Your task to perform on an android device: toggle location history Image 0: 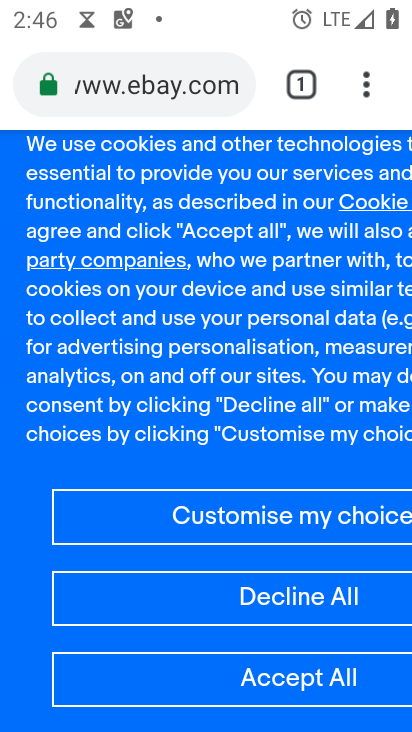
Step 0: press back button
Your task to perform on an android device: toggle location history Image 1: 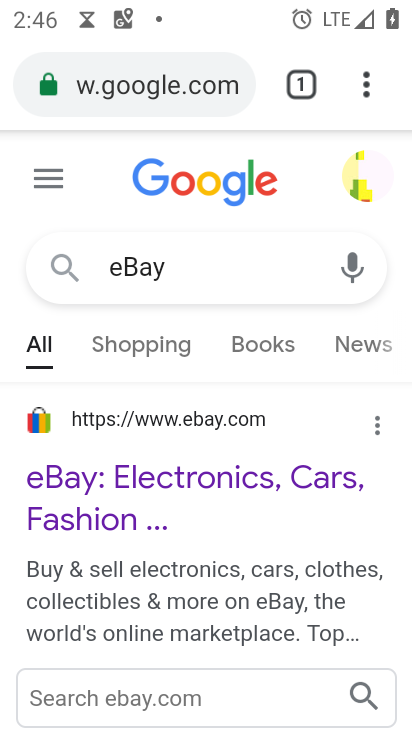
Step 1: press home button
Your task to perform on an android device: toggle location history Image 2: 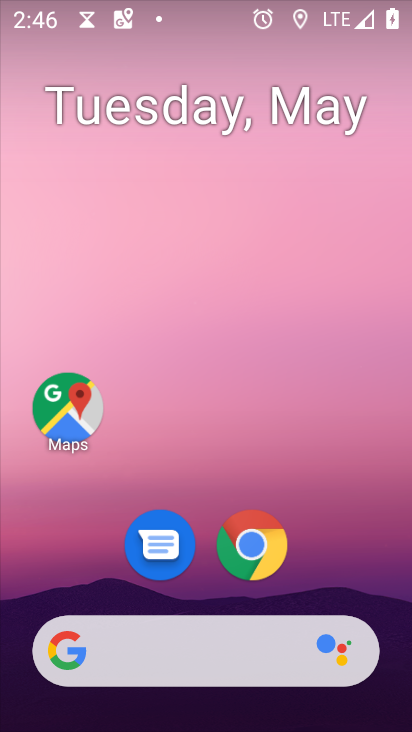
Step 2: drag from (352, 510) to (290, 59)
Your task to perform on an android device: toggle location history Image 3: 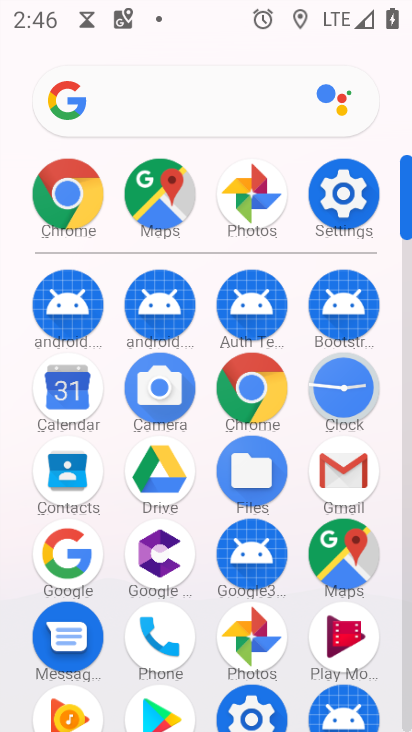
Step 3: click (341, 189)
Your task to perform on an android device: toggle location history Image 4: 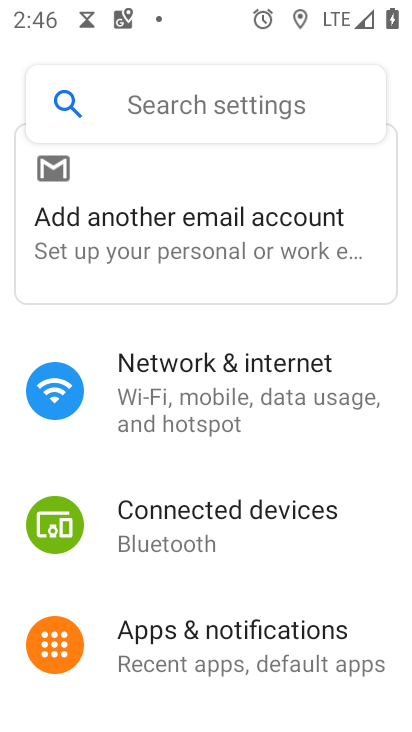
Step 4: drag from (299, 600) to (298, 167)
Your task to perform on an android device: toggle location history Image 5: 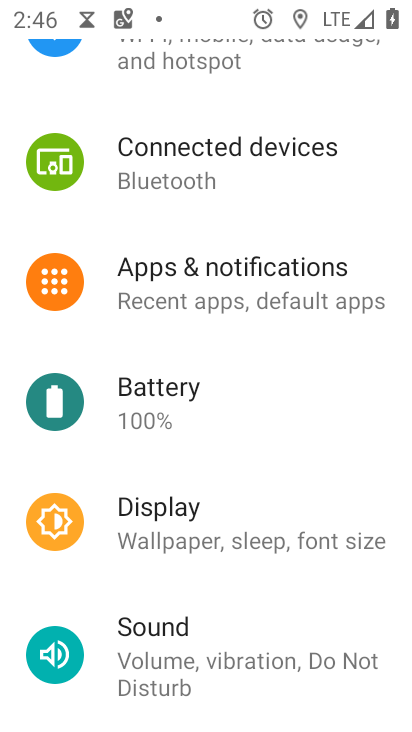
Step 5: drag from (222, 551) to (221, 233)
Your task to perform on an android device: toggle location history Image 6: 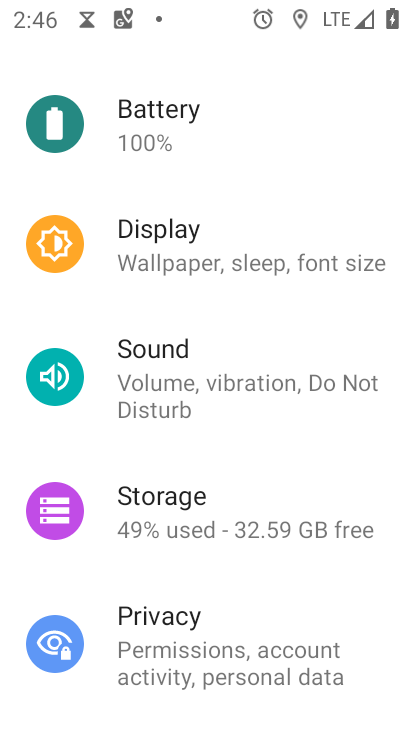
Step 6: drag from (205, 566) to (254, 138)
Your task to perform on an android device: toggle location history Image 7: 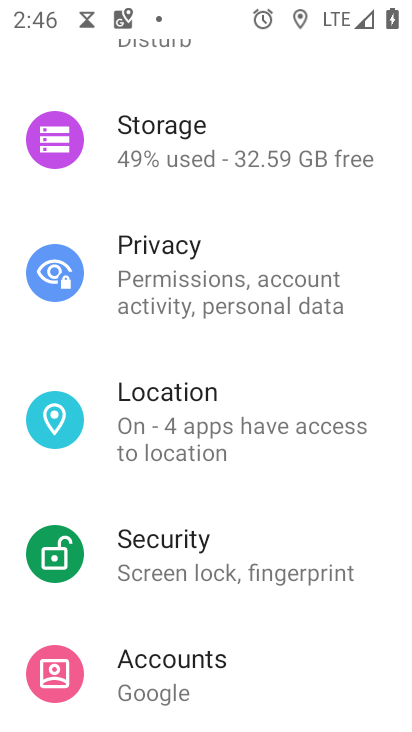
Step 7: click (222, 390)
Your task to perform on an android device: toggle location history Image 8: 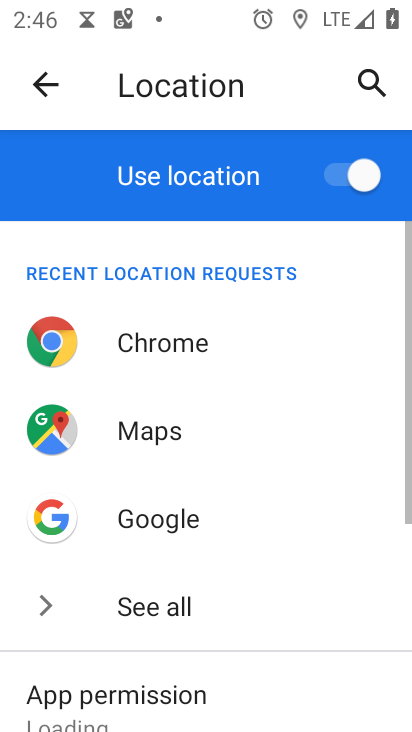
Step 8: drag from (187, 586) to (234, 140)
Your task to perform on an android device: toggle location history Image 9: 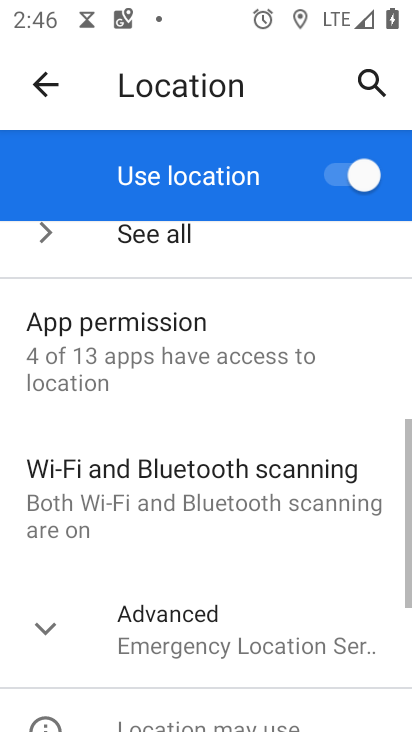
Step 9: click (115, 615)
Your task to perform on an android device: toggle location history Image 10: 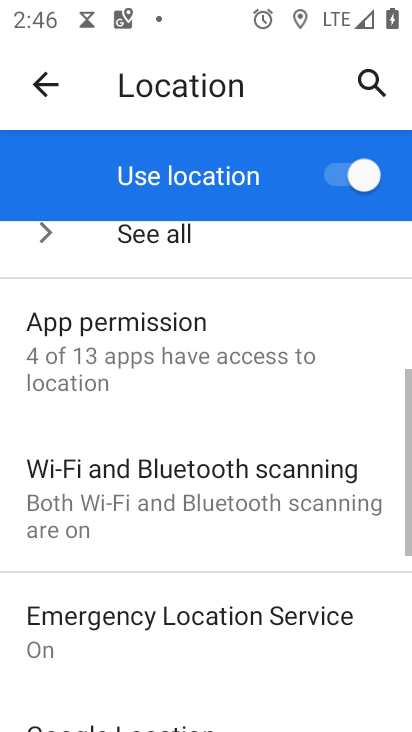
Step 10: drag from (206, 606) to (251, 219)
Your task to perform on an android device: toggle location history Image 11: 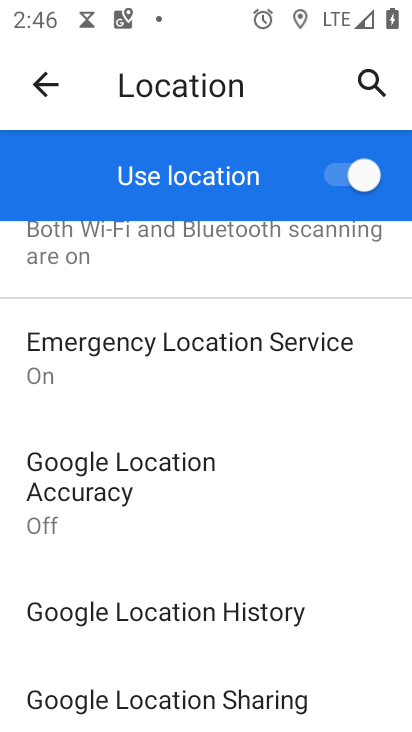
Step 11: drag from (249, 598) to (285, 323)
Your task to perform on an android device: toggle location history Image 12: 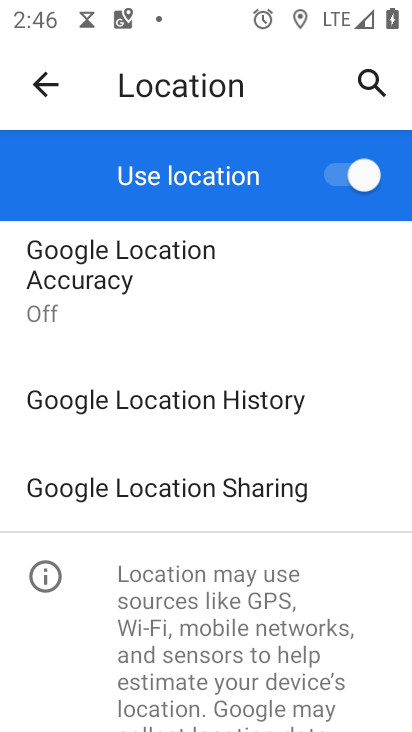
Step 12: click (148, 390)
Your task to perform on an android device: toggle location history Image 13: 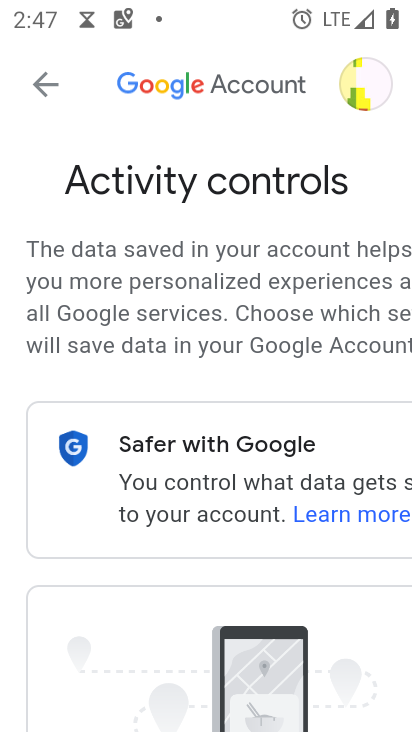
Step 13: drag from (155, 569) to (155, 144)
Your task to perform on an android device: toggle location history Image 14: 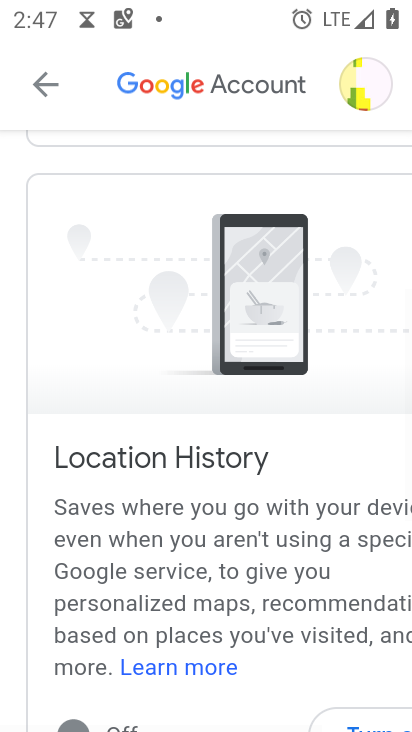
Step 14: drag from (102, 567) to (88, 204)
Your task to perform on an android device: toggle location history Image 15: 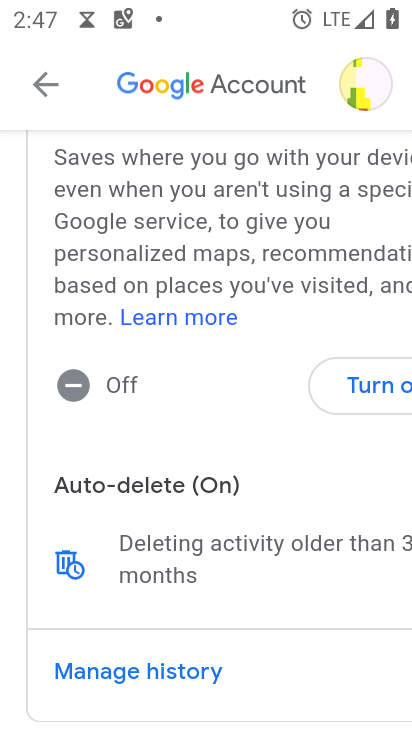
Step 15: click (351, 385)
Your task to perform on an android device: toggle location history Image 16: 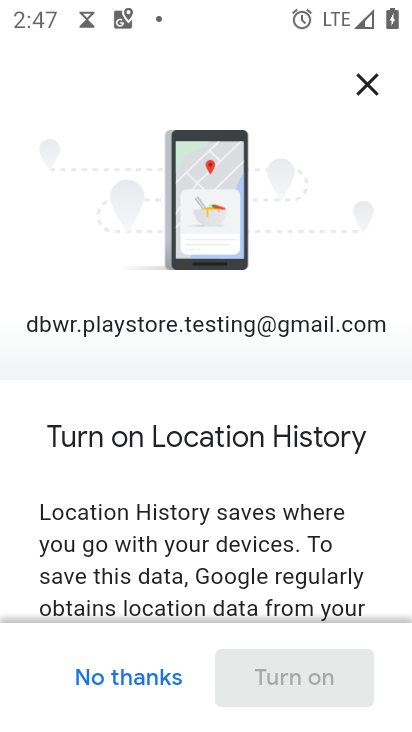
Step 16: drag from (290, 456) to (315, 162)
Your task to perform on an android device: toggle location history Image 17: 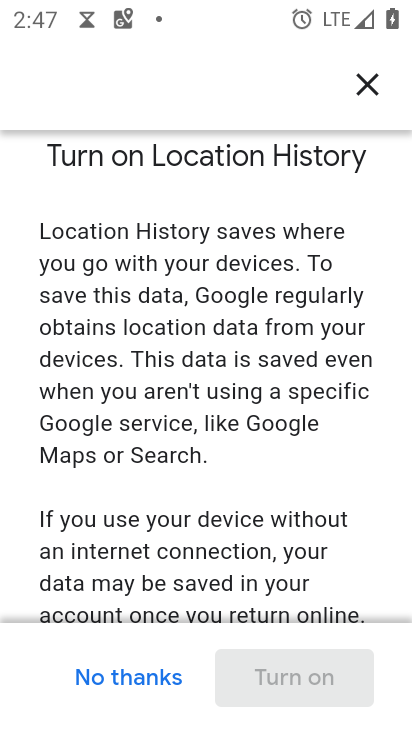
Step 17: drag from (240, 497) to (240, 138)
Your task to perform on an android device: toggle location history Image 18: 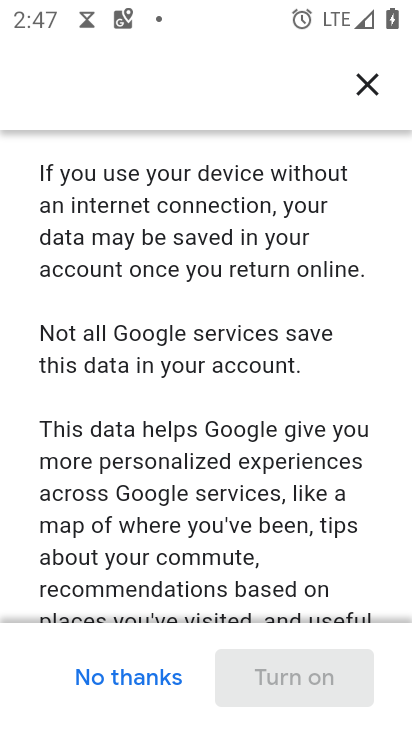
Step 18: drag from (258, 507) to (277, 120)
Your task to perform on an android device: toggle location history Image 19: 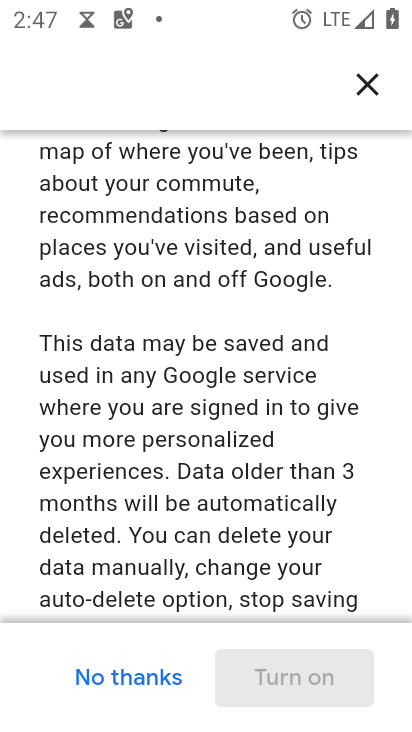
Step 19: drag from (228, 524) to (268, 153)
Your task to perform on an android device: toggle location history Image 20: 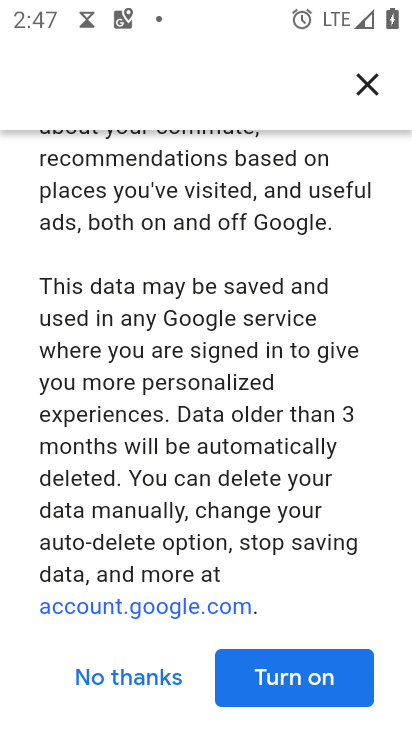
Step 20: click (274, 699)
Your task to perform on an android device: toggle location history Image 21: 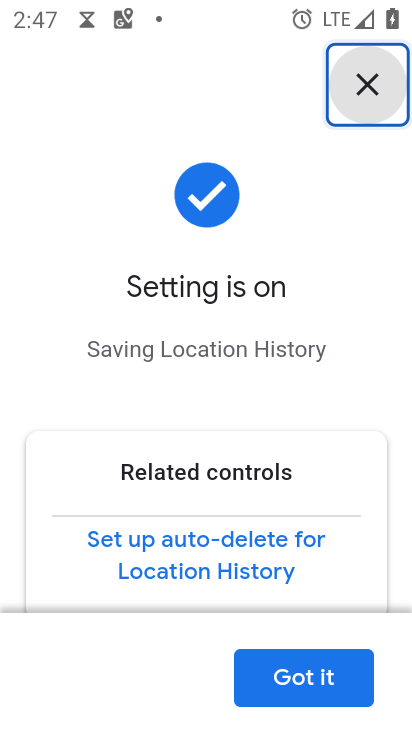
Step 21: click (325, 675)
Your task to perform on an android device: toggle location history Image 22: 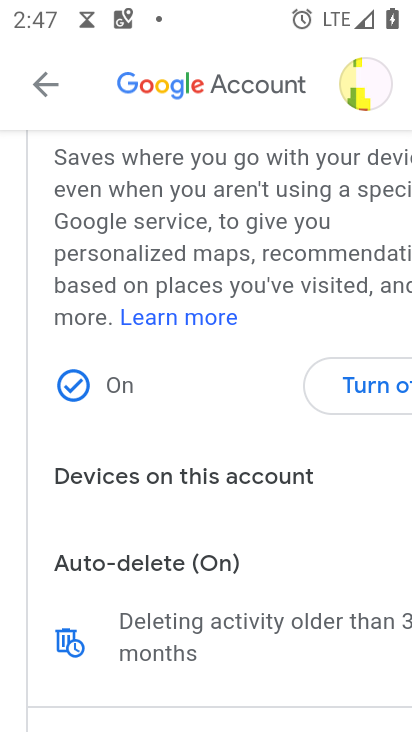
Step 22: task complete